Your task to perform on an android device: See recent photos Image 0: 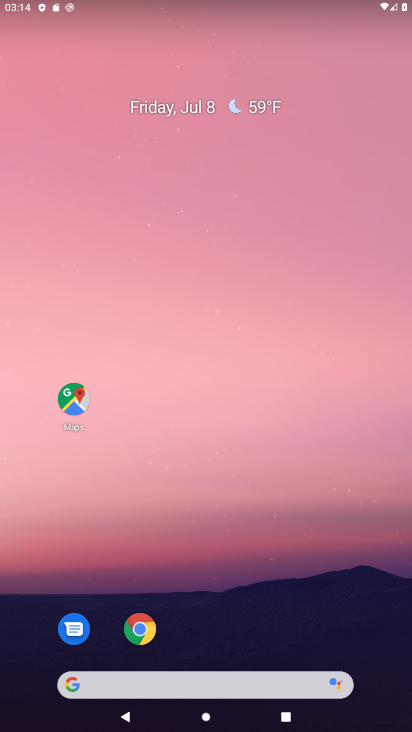
Step 0: press home button
Your task to perform on an android device: See recent photos Image 1: 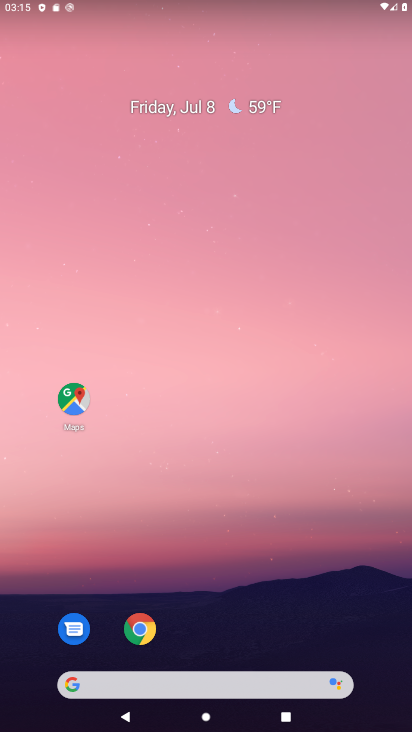
Step 1: drag from (205, 644) to (258, 73)
Your task to perform on an android device: See recent photos Image 2: 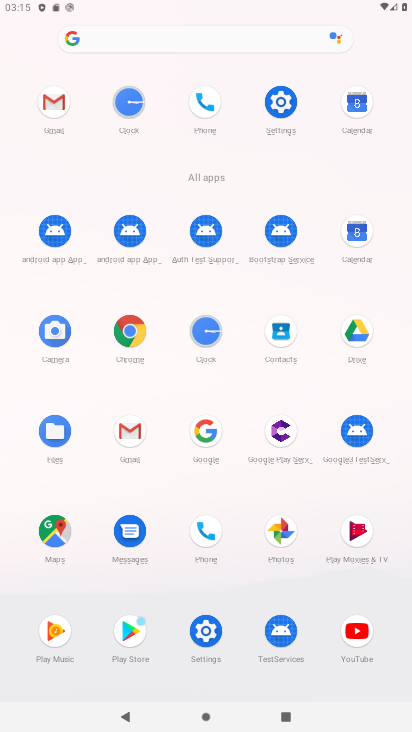
Step 2: click (280, 528)
Your task to perform on an android device: See recent photos Image 3: 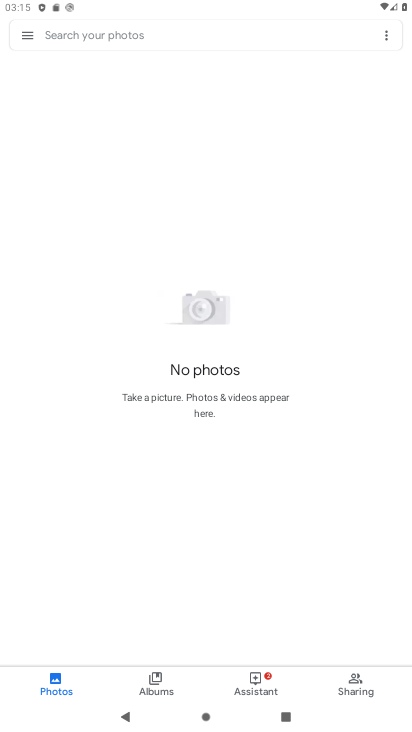
Step 3: task complete